Your task to perform on an android device: toggle sleep mode Image 0: 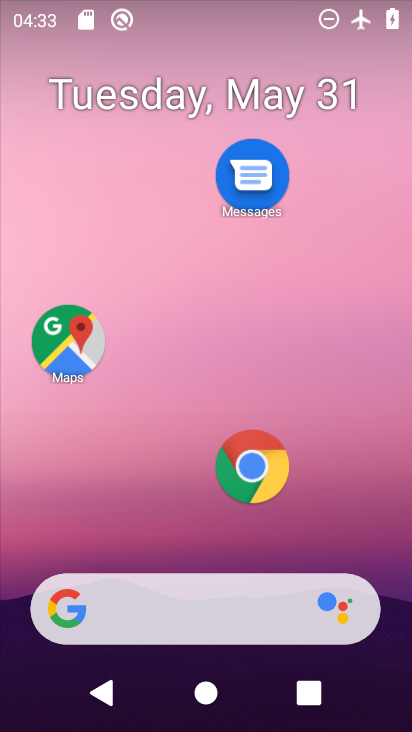
Step 0: drag from (131, 544) to (205, 56)
Your task to perform on an android device: toggle sleep mode Image 1: 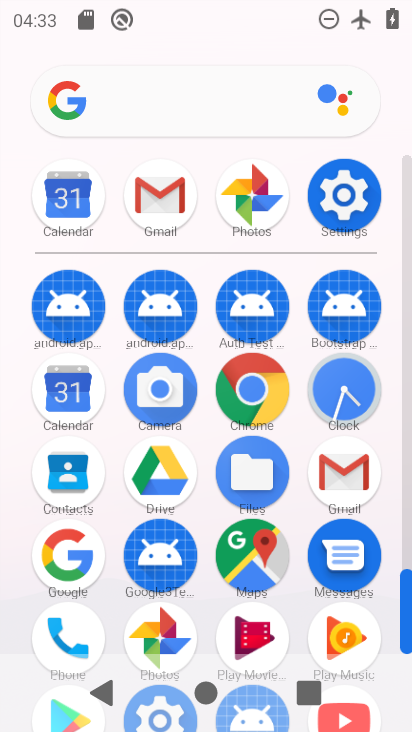
Step 1: click (337, 189)
Your task to perform on an android device: toggle sleep mode Image 2: 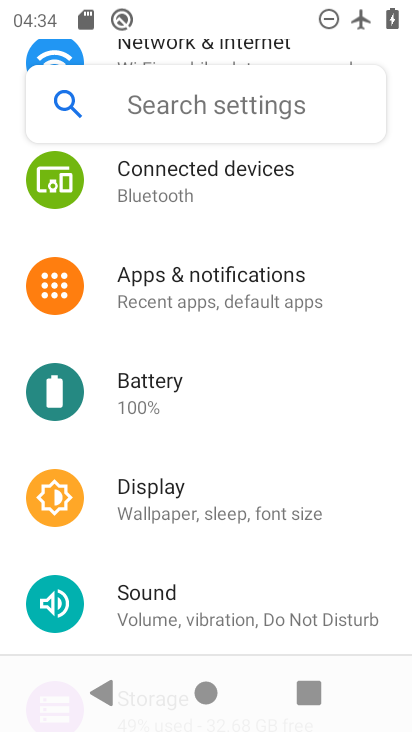
Step 2: drag from (240, 600) to (234, 159)
Your task to perform on an android device: toggle sleep mode Image 3: 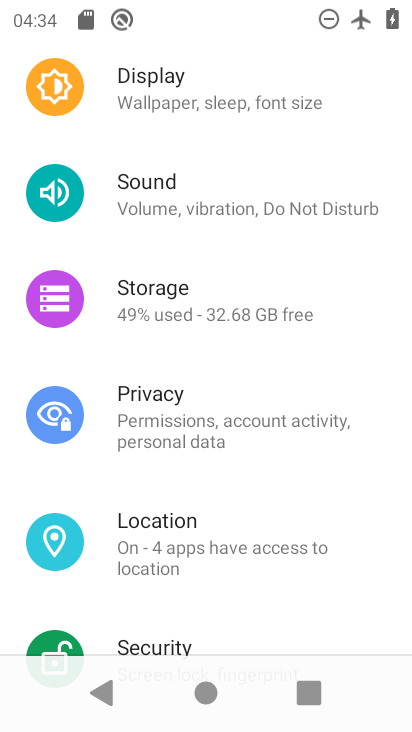
Step 3: drag from (189, 119) to (242, 707)
Your task to perform on an android device: toggle sleep mode Image 4: 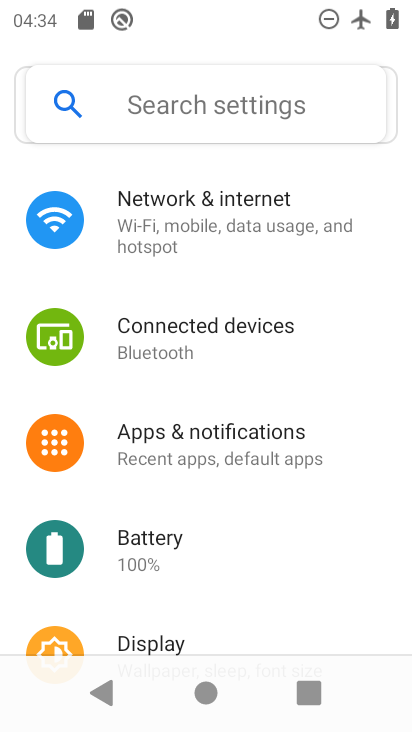
Step 4: click (150, 108)
Your task to perform on an android device: toggle sleep mode Image 5: 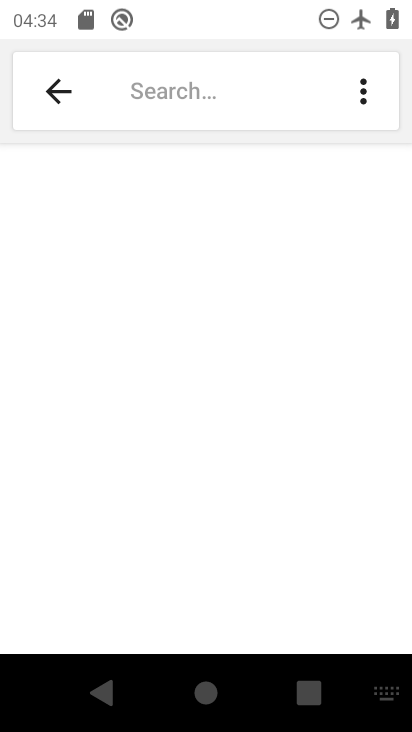
Step 5: type "sleep mode"
Your task to perform on an android device: toggle sleep mode Image 6: 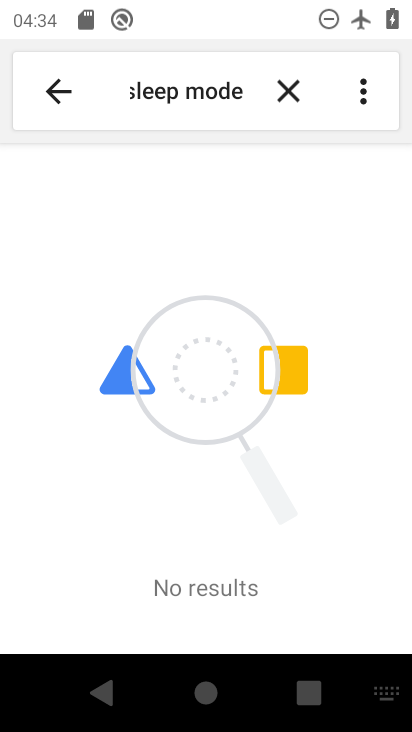
Step 6: task complete